Your task to perform on an android device: open a new tab in the chrome app Image 0: 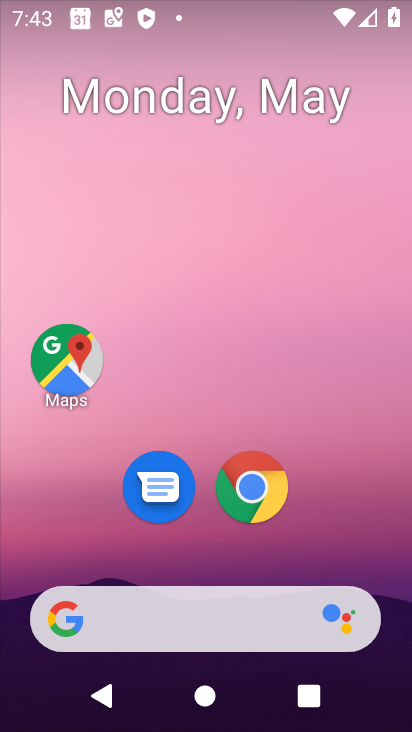
Step 0: press home button
Your task to perform on an android device: open a new tab in the chrome app Image 1: 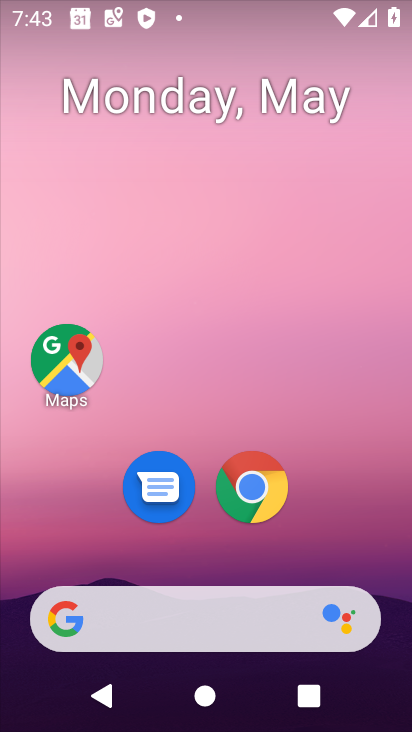
Step 1: drag from (251, 661) to (290, 2)
Your task to perform on an android device: open a new tab in the chrome app Image 2: 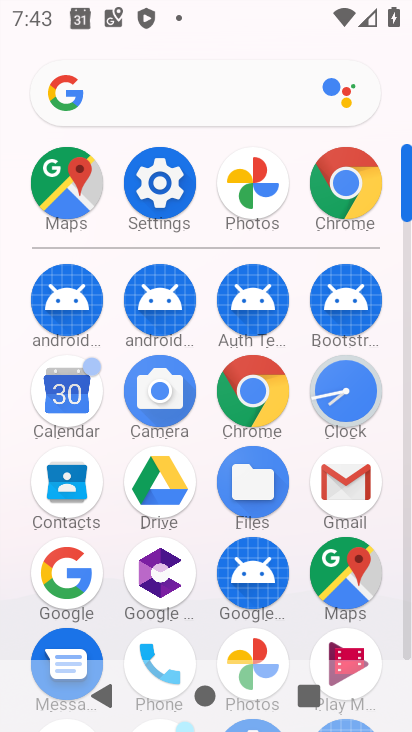
Step 2: click (340, 175)
Your task to perform on an android device: open a new tab in the chrome app Image 3: 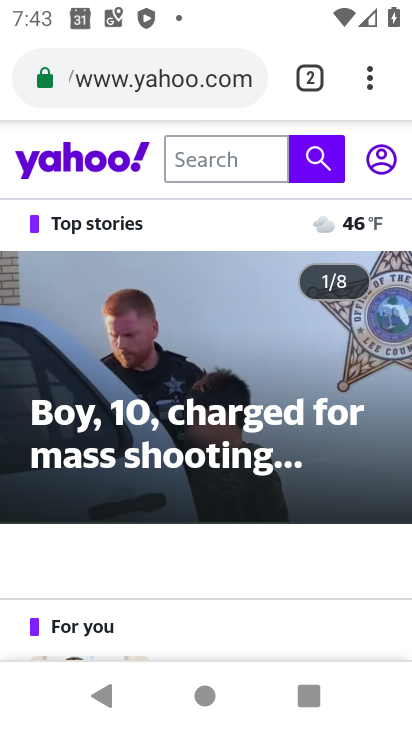
Step 3: click (369, 86)
Your task to perform on an android device: open a new tab in the chrome app Image 4: 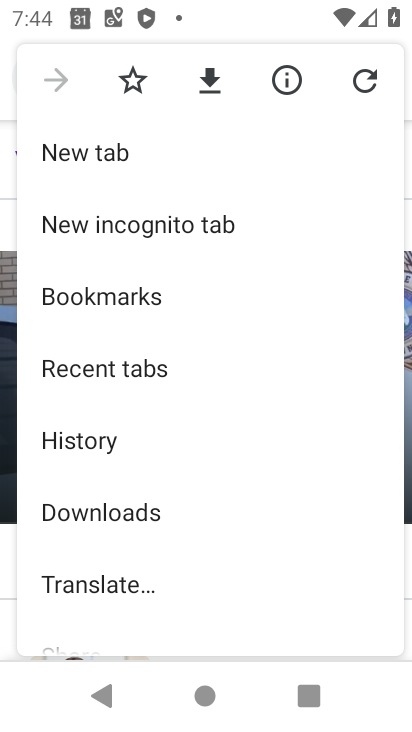
Step 4: click (138, 151)
Your task to perform on an android device: open a new tab in the chrome app Image 5: 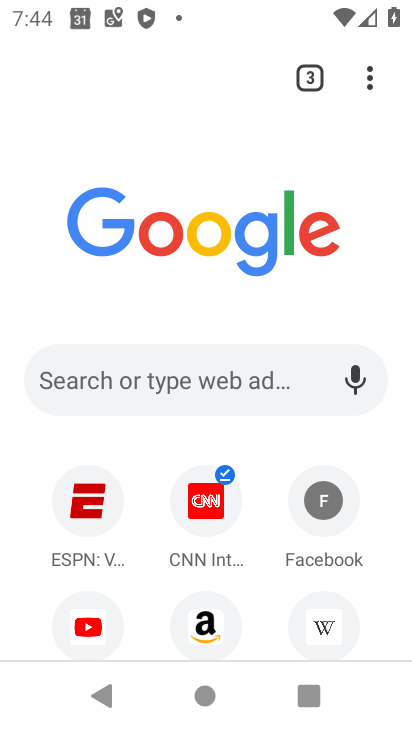
Step 5: task complete